Your task to perform on an android device: turn off javascript in the chrome app Image 0: 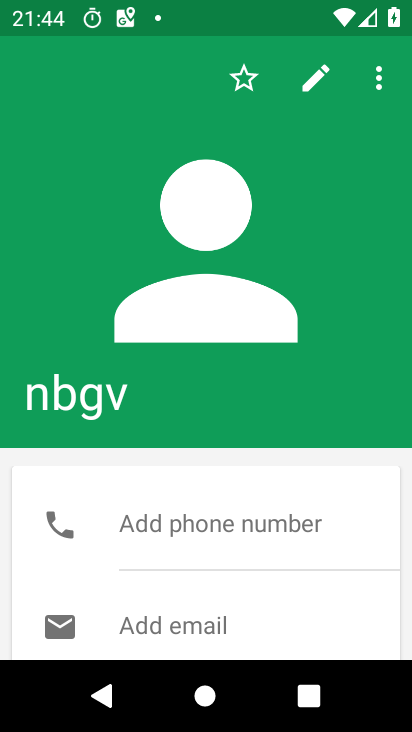
Step 0: press home button
Your task to perform on an android device: turn off javascript in the chrome app Image 1: 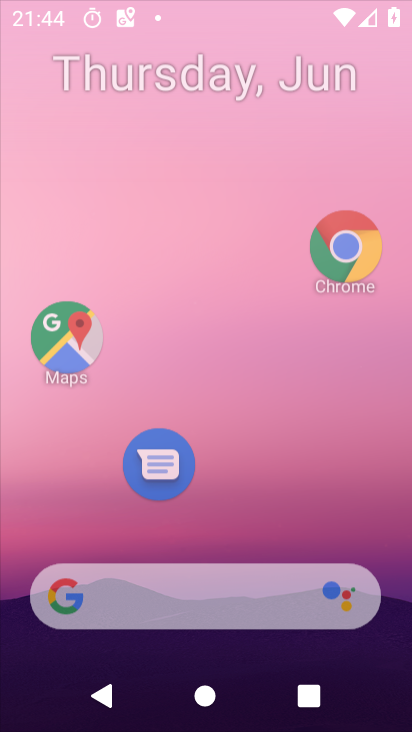
Step 1: drag from (213, 562) to (392, 41)
Your task to perform on an android device: turn off javascript in the chrome app Image 2: 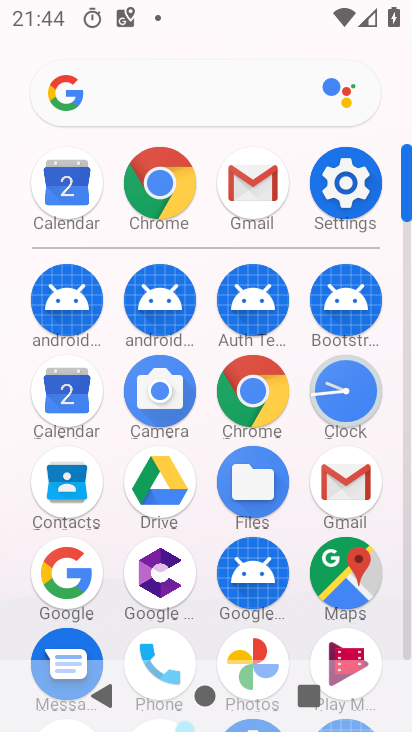
Step 2: click (249, 382)
Your task to perform on an android device: turn off javascript in the chrome app Image 3: 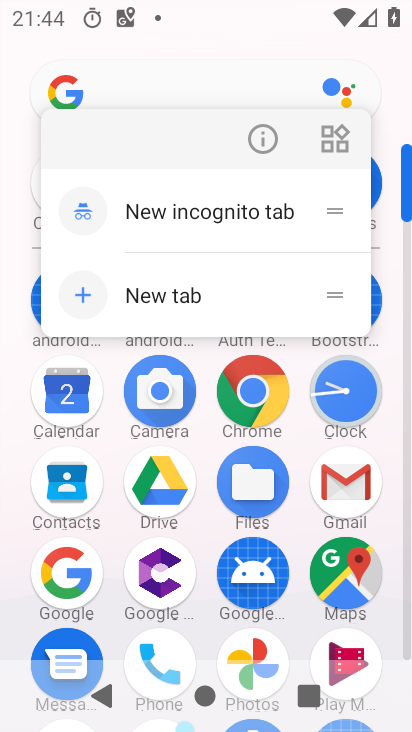
Step 3: click (255, 122)
Your task to perform on an android device: turn off javascript in the chrome app Image 4: 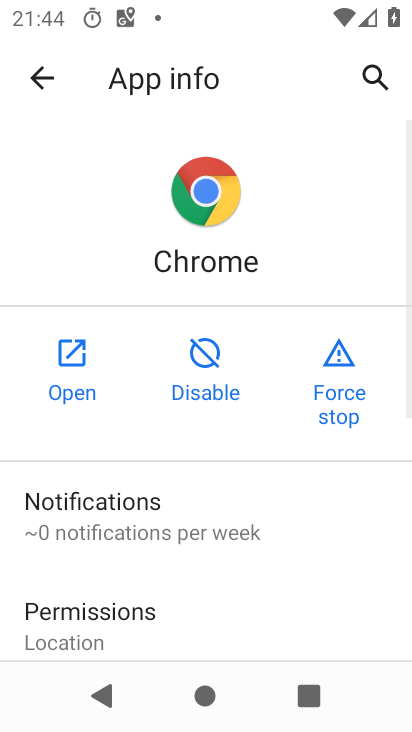
Step 4: click (71, 377)
Your task to perform on an android device: turn off javascript in the chrome app Image 5: 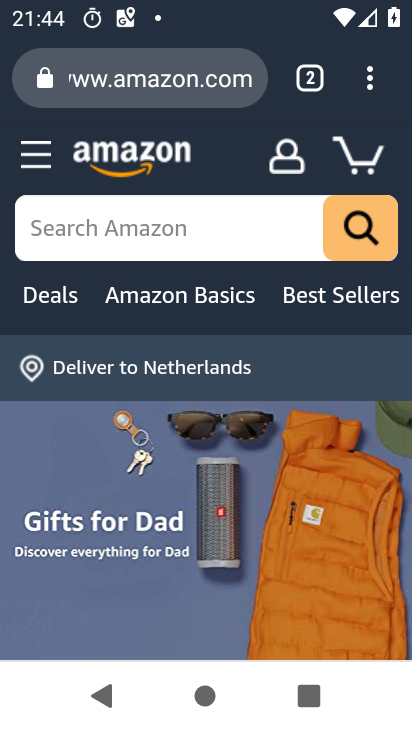
Step 5: drag from (372, 87) to (123, 546)
Your task to perform on an android device: turn off javascript in the chrome app Image 6: 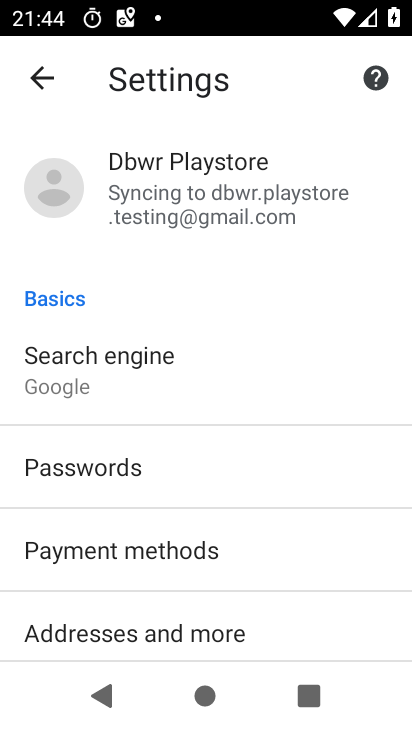
Step 6: drag from (248, 507) to (316, 9)
Your task to perform on an android device: turn off javascript in the chrome app Image 7: 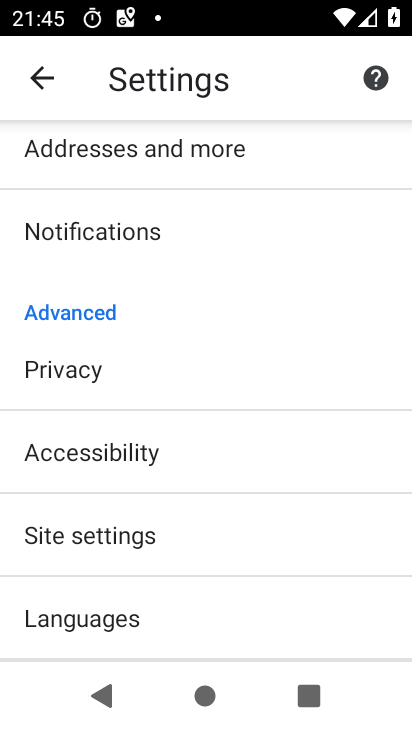
Step 7: click (109, 542)
Your task to perform on an android device: turn off javascript in the chrome app Image 8: 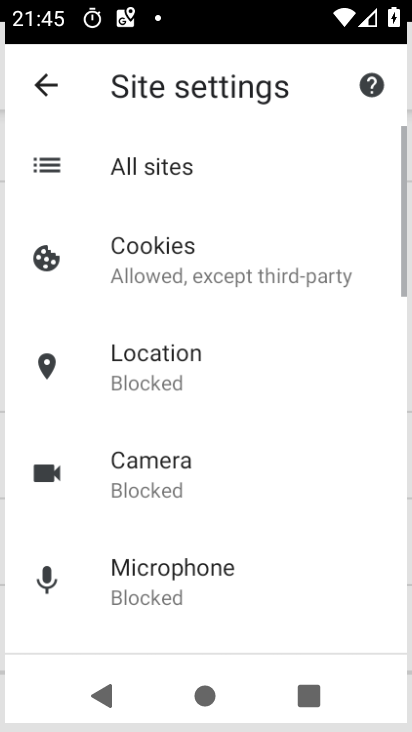
Step 8: drag from (191, 528) to (298, 60)
Your task to perform on an android device: turn off javascript in the chrome app Image 9: 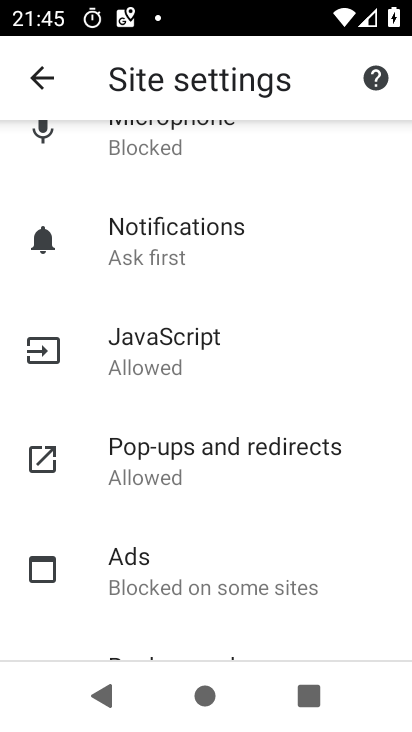
Step 9: click (179, 346)
Your task to perform on an android device: turn off javascript in the chrome app Image 10: 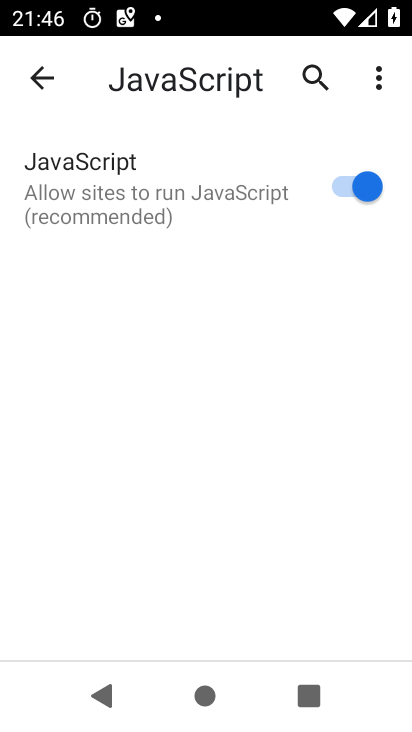
Step 10: click (323, 187)
Your task to perform on an android device: turn off javascript in the chrome app Image 11: 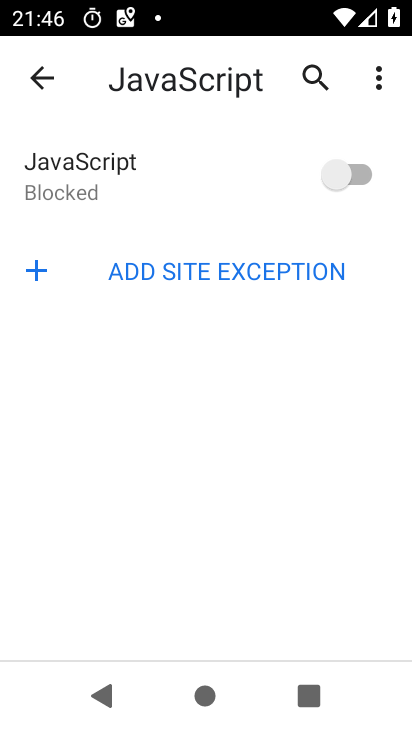
Step 11: task complete